Your task to perform on an android device: Open Google Maps Image 0: 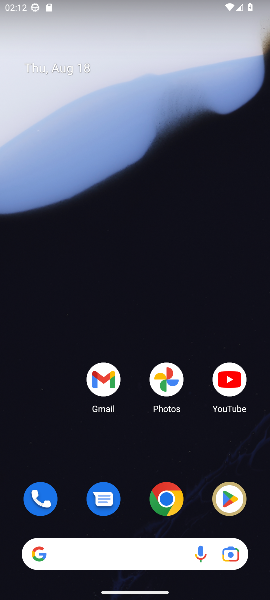
Step 0: drag from (147, 519) to (119, 148)
Your task to perform on an android device: Open Google Maps Image 1: 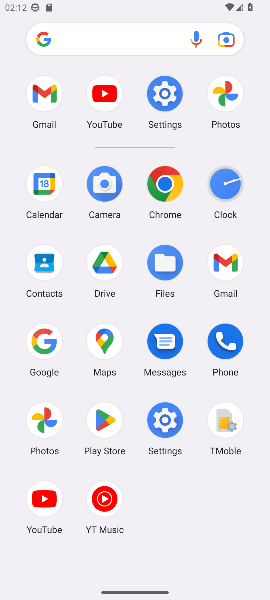
Step 1: click (103, 337)
Your task to perform on an android device: Open Google Maps Image 2: 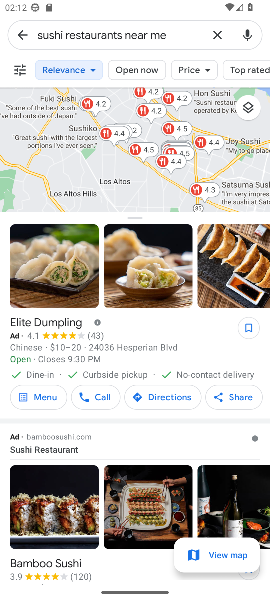
Step 2: click (18, 33)
Your task to perform on an android device: Open Google Maps Image 3: 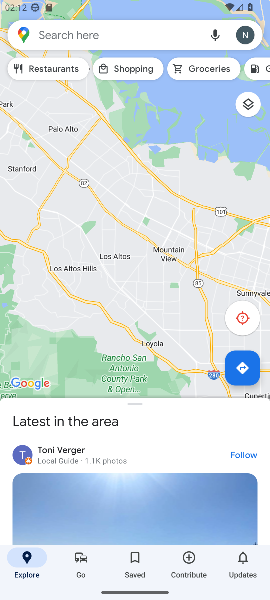
Step 3: task complete